Your task to perform on an android device: Play the last video I watched on Youtube Image 0: 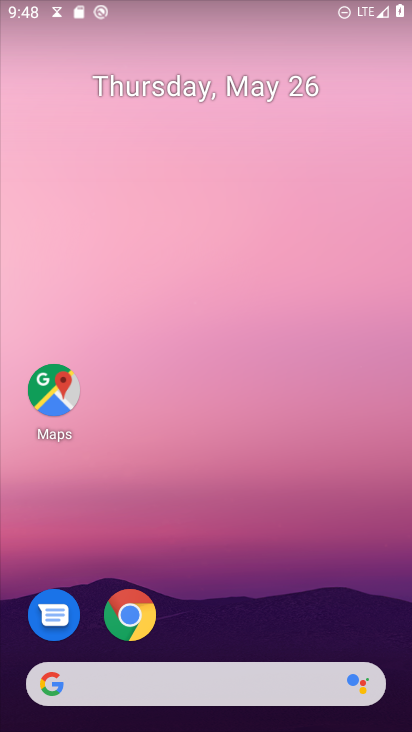
Step 0: drag from (242, 613) to (217, 323)
Your task to perform on an android device: Play the last video I watched on Youtube Image 1: 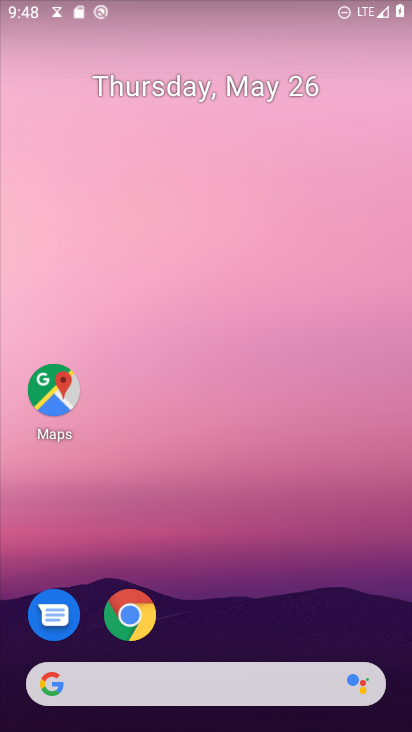
Step 1: drag from (233, 684) to (224, 93)
Your task to perform on an android device: Play the last video I watched on Youtube Image 2: 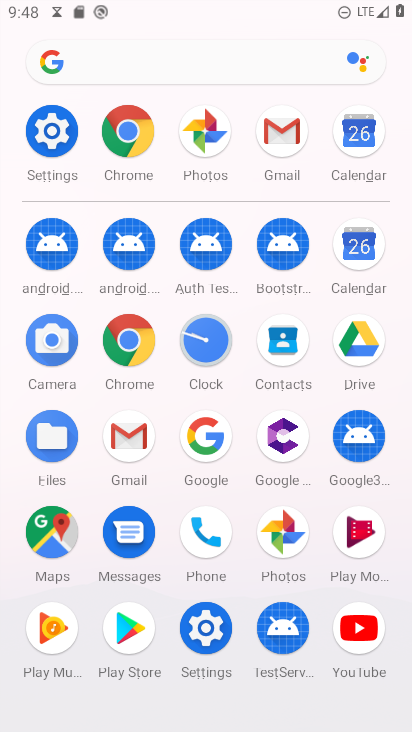
Step 2: click (359, 622)
Your task to perform on an android device: Play the last video I watched on Youtube Image 3: 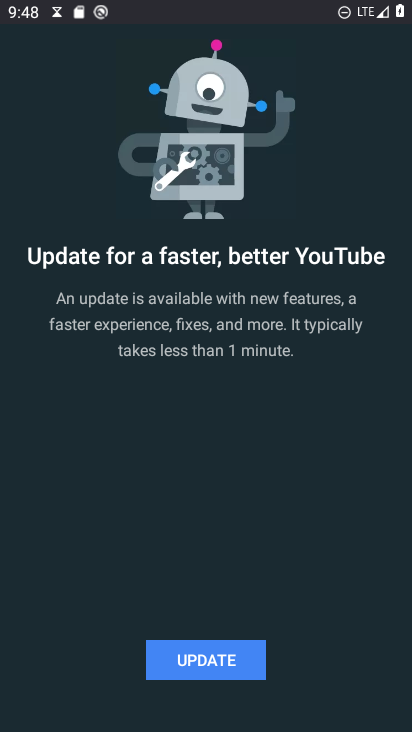
Step 3: task complete